Your task to perform on an android device: Go to Amazon Image 0: 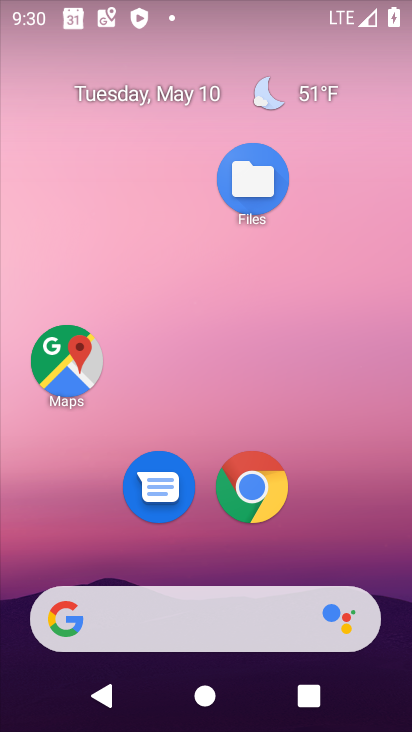
Step 0: click (200, 540)
Your task to perform on an android device: Go to Amazon Image 1: 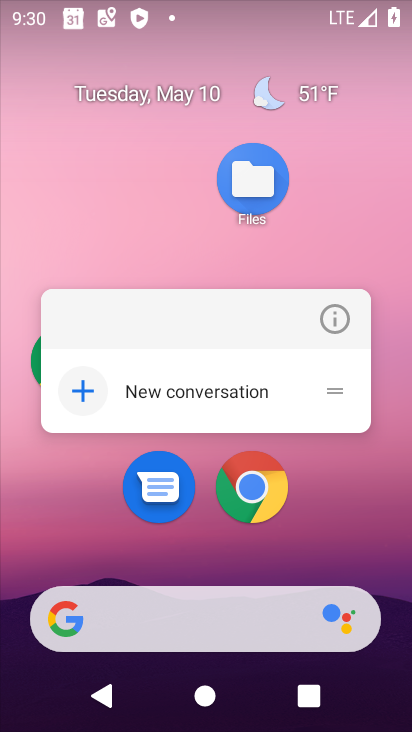
Step 1: click (241, 547)
Your task to perform on an android device: Go to Amazon Image 2: 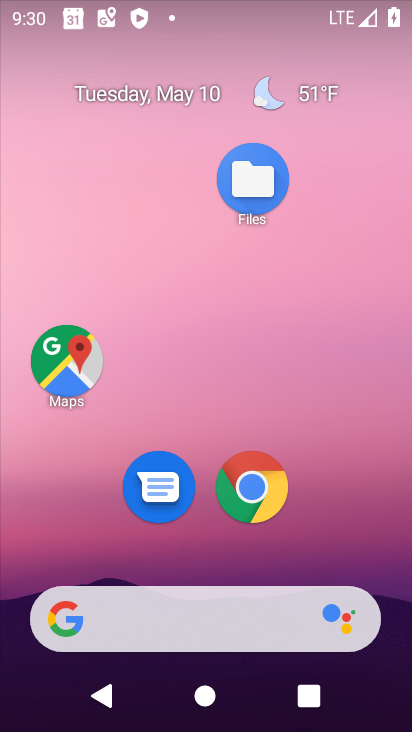
Step 2: click (254, 486)
Your task to perform on an android device: Go to Amazon Image 3: 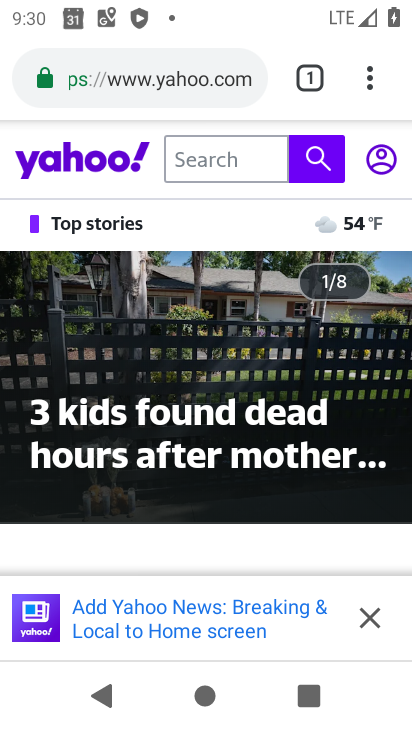
Step 3: press back button
Your task to perform on an android device: Go to Amazon Image 4: 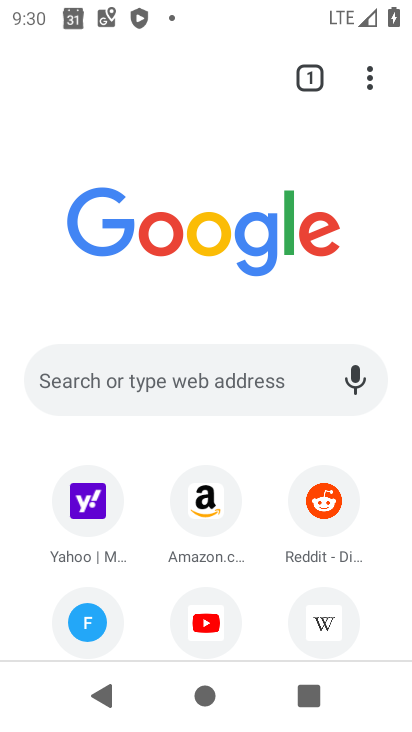
Step 4: click (201, 502)
Your task to perform on an android device: Go to Amazon Image 5: 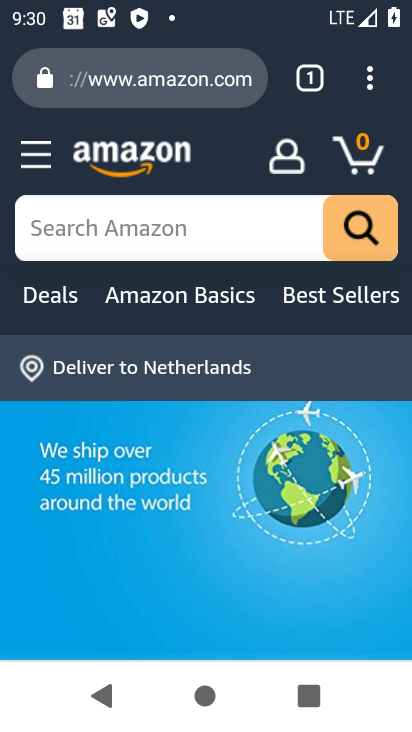
Step 5: task complete